Your task to perform on an android device: Open Google Chrome and click the shortcut for Amazon.com Image 0: 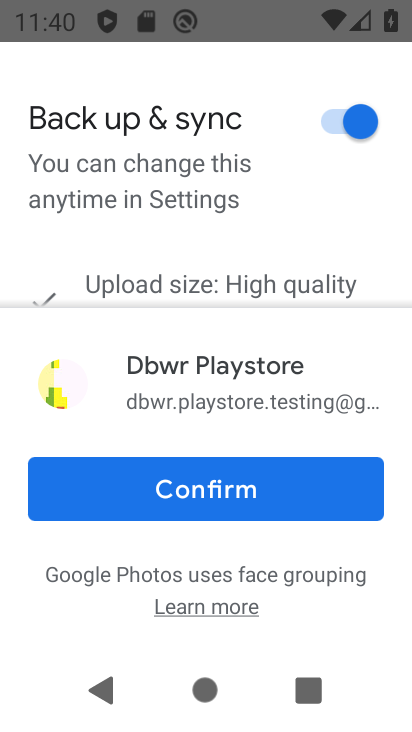
Step 0: press home button
Your task to perform on an android device: Open Google Chrome and click the shortcut for Amazon.com Image 1: 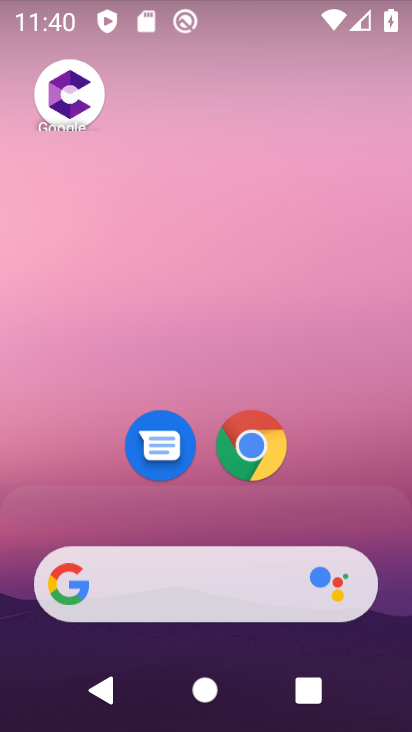
Step 1: click (254, 443)
Your task to perform on an android device: Open Google Chrome and click the shortcut for Amazon.com Image 2: 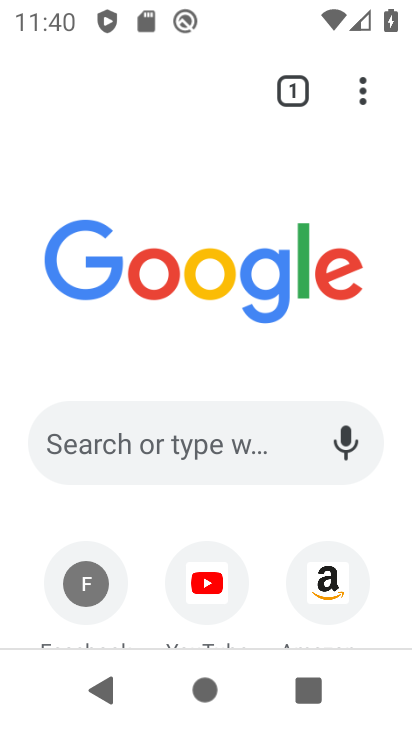
Step 2: click (321, 576)
Your task to perform on an android device: Open Google Chrome and click the shortcut for Amazon.com Image 3: 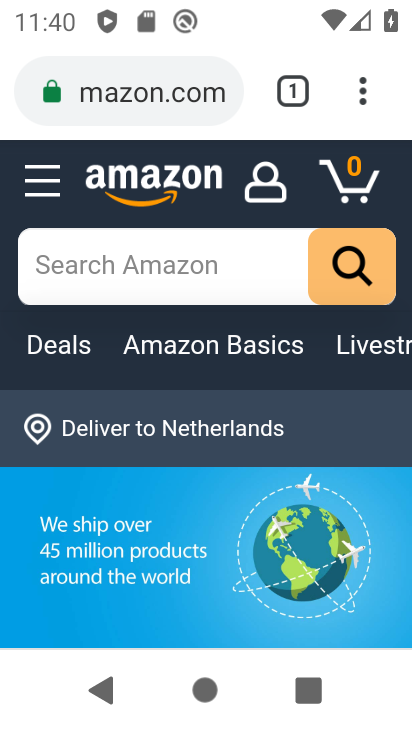
Step 3: task complete